Your task to perform on an android device: Go to sound settings Image 0: 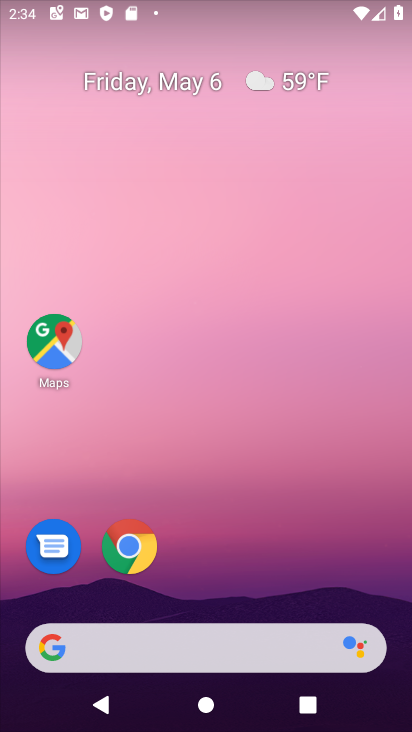
Step 0: drag from (246, 558) to (246, 75)
Your task to perform on an android device: Go to sound settings Image 1: 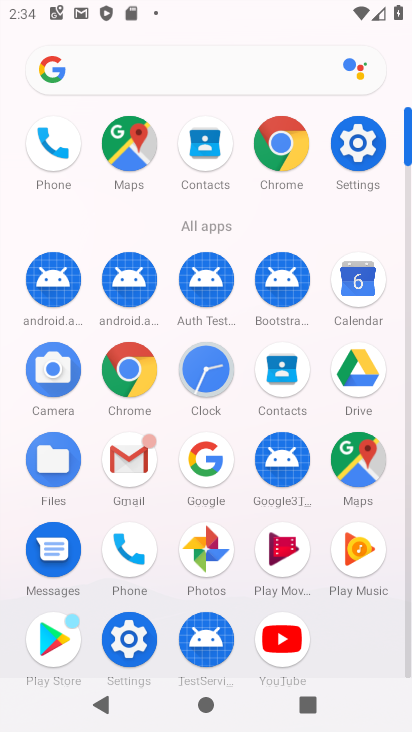
Step 1: click (363, 147)
Your task to perform on an android device: Go to sound settings Image 2: 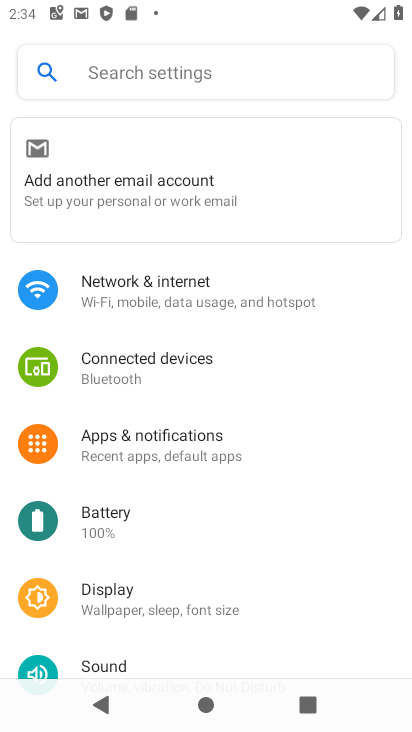
Step 2: click (153, 667)
Your task to perform on an android device: Go to sound settings Image 3: 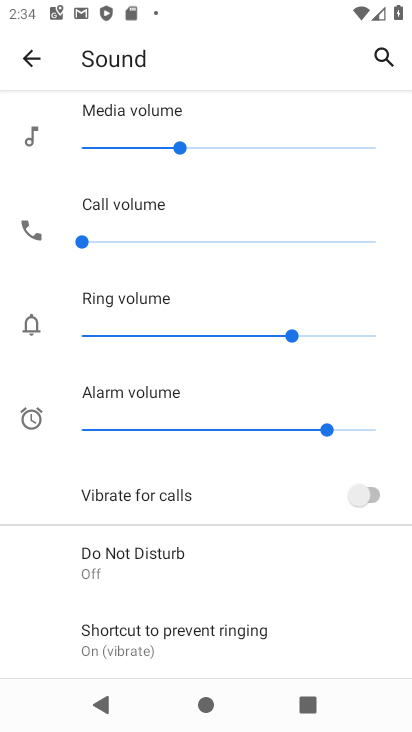
Step 3: task complete